Your task to perform on an android device: Empty the shopping cart on bestbuy.com. Image 0: 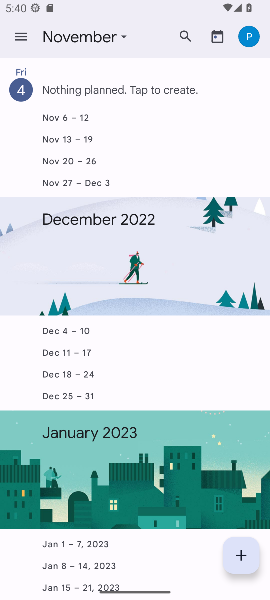
Step 0: press home button
Your task to perform on an android device: Empty the shopping cart on bestbuy.com. Image 1: 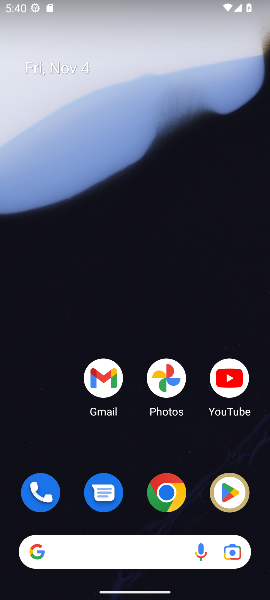
Step 1: drag from (138, 409) to (157, 39)
Your task to perform on an android device: Empty the shopping cart on bestbuy.com. Image 2: 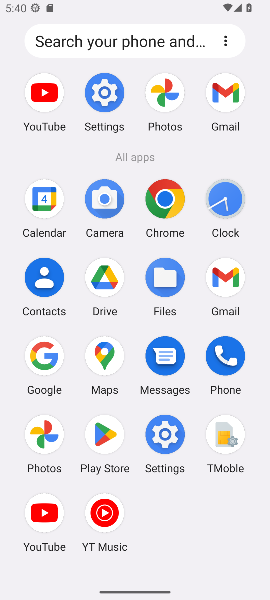
Step 2: click (168, 197)
Your task to perform on an android device: Empty the shopping cart on bestbuy.com. Image 3: 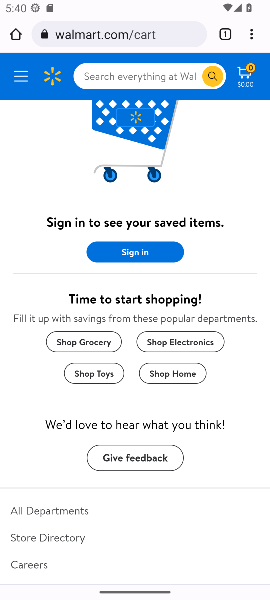
Step 3: click (154, 35)
Your task to perform on an android device: Empty the shopping cart on bestbuy.com. Image 4: 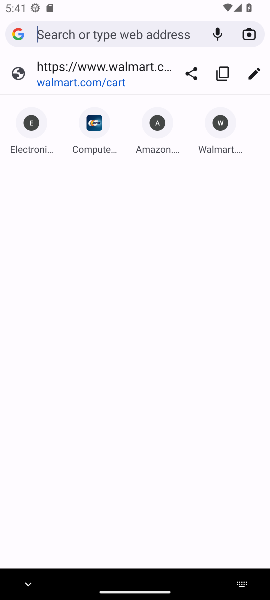
Step 4: type "bestbuy.com"
Your task to perform on an android device: Empty the shopping cart on bestbuy.com. Image 5: 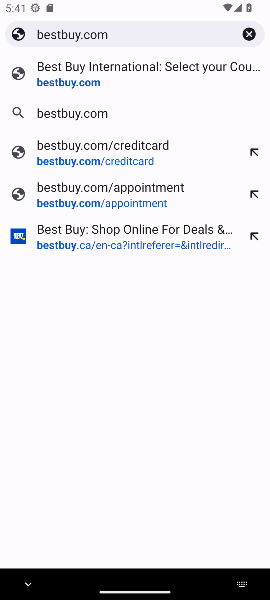
Step 5: press enter
Your task to perform on an android device: Empty the shopping cart on bestbuy.com. Image 6: 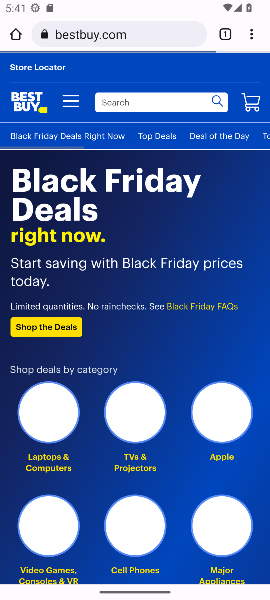
Step 6: click (257, 72)
Your task to perform on an android device: Empty the shopping cart on bestbuy.com. Image 7: 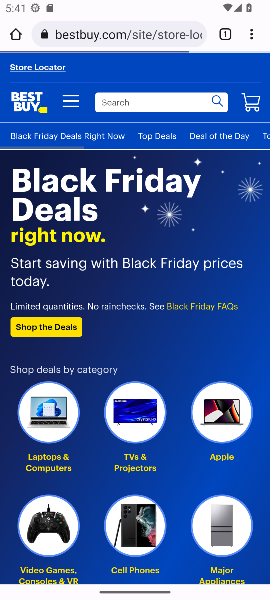
Step 7: click (257, 97)
Your task to perform on an android device: Empty the shopping cart on bestbuy.com. Image 8: 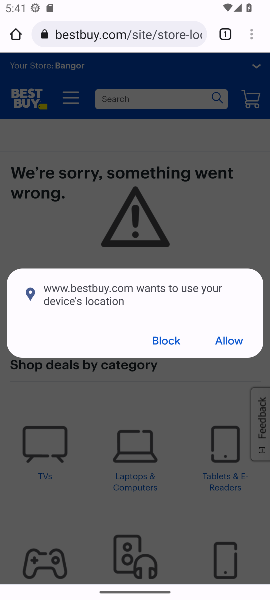
Step 8: click (166, 333)
Your task to perform on an android device: Empty the shopping cart on bestbuy.com. Image 9: 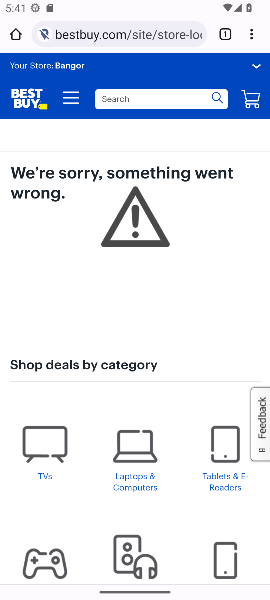
Step 9: task complete